Your task to perform on an android device: Go to Yahoo.com Image 0: 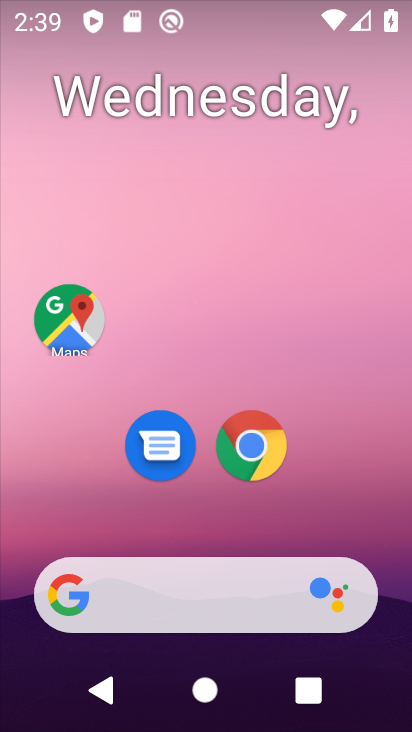
Step 0: click (245, 443)
Your task to perform on an android device: Go to Yahoo.com Image 1: 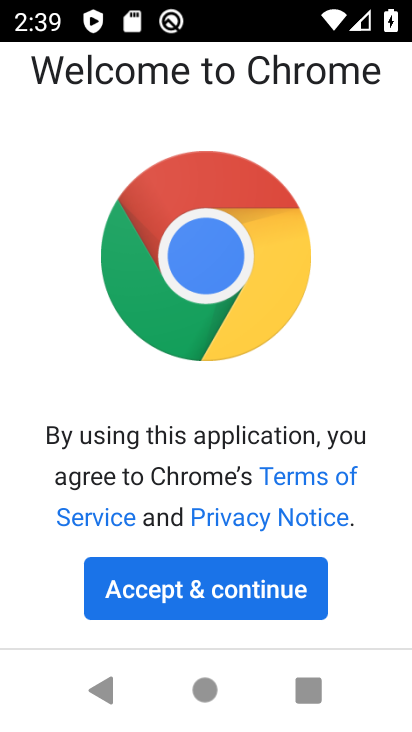
Step 1: click (270, 589)
Your task to perform on an android device: Go to Yahoo.com Image 2: 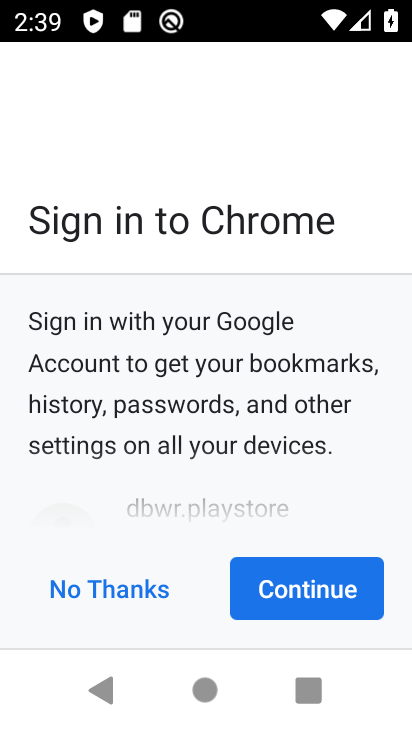
Step 2: click (320, 613)
Your task to perform on an android device: Go to Yahoo.com Image 3: 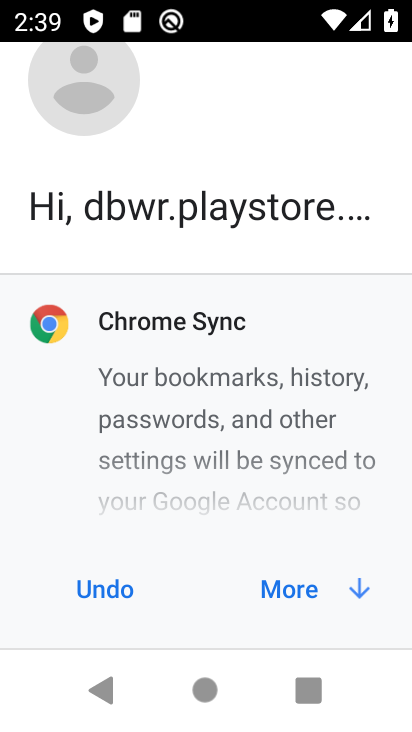
Step 3: click (297, 605)
Your task to perform on an android device: Go to Yahoo.com Image 4: 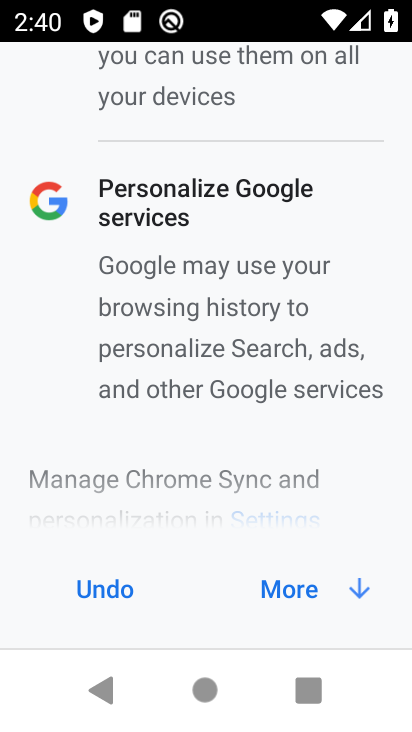
Step 4: click (355, 593)
Your task to perform on an android device: Go to Yahoo.com Image 5: 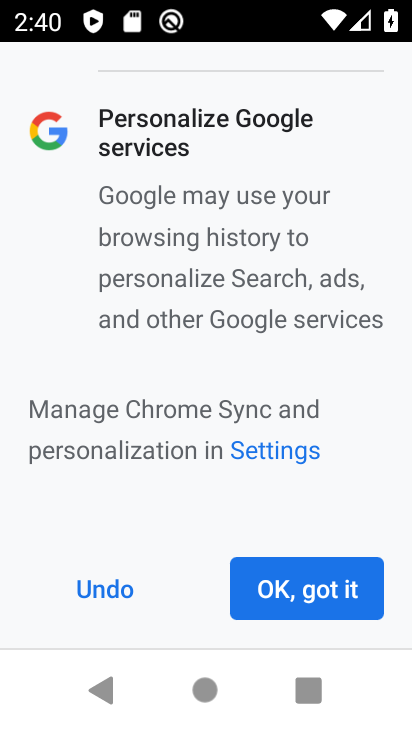
Step 5: click (358, 590)
Your task to perform on an android device: Go to Yahoo.com Image 6: 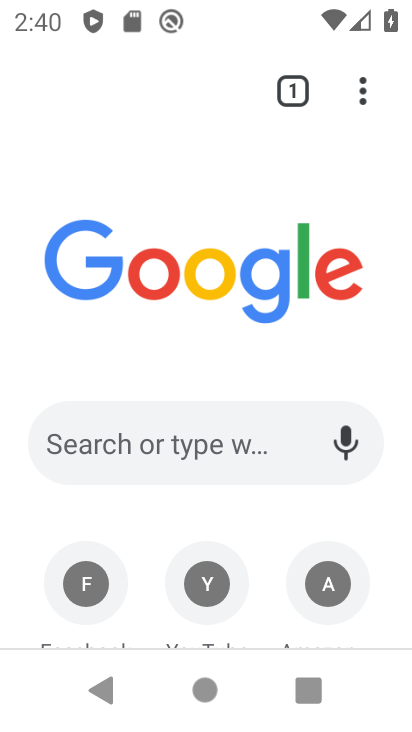
Step 6: drag from (246, 621) to (297, 448)
Your task to perform on an android device: Go to Yahoo.com Image 7: 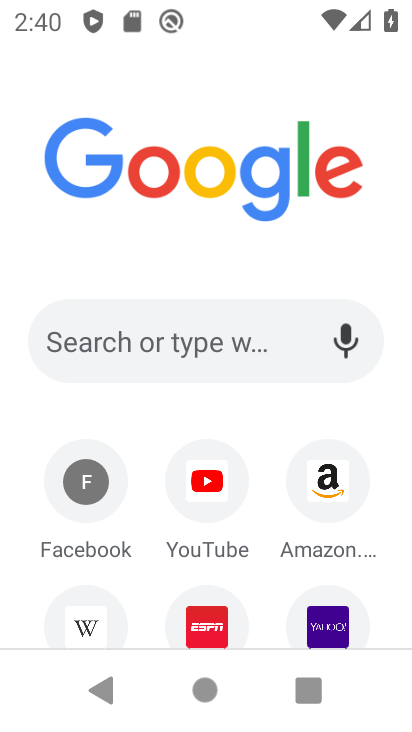
Step 7: drag from (251, 617) to (287, 474)
Your task to perform on an android device: Go to Yahoo.com Image 8: 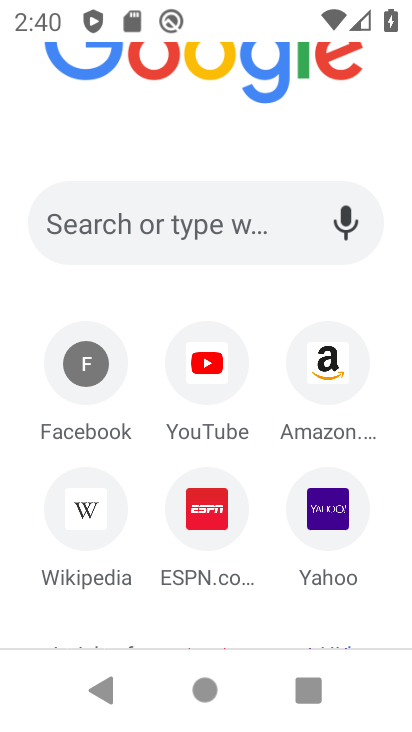
Step 8: click (319, 511)
Your task to perform on an android device: Go to Yahoo.com Image 9: 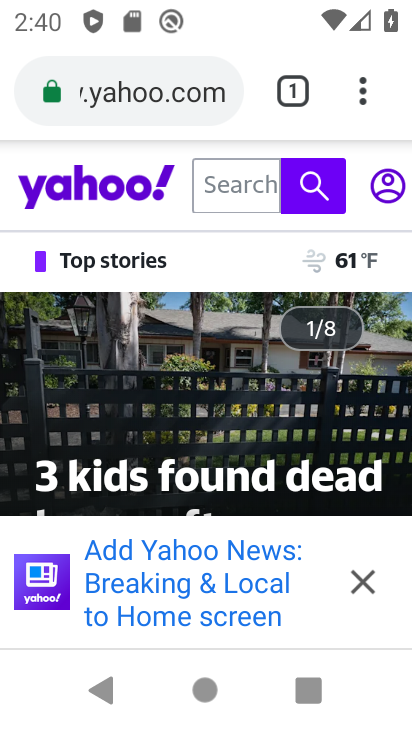
Step 9: task complete